Your task to perform on an android device: set the timer Image 0: 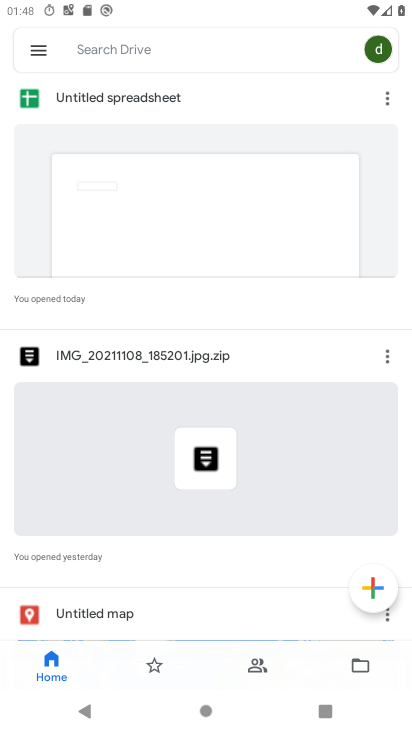
Step 0: press home button
Your task to perform on an android device: set the timer Image 1: 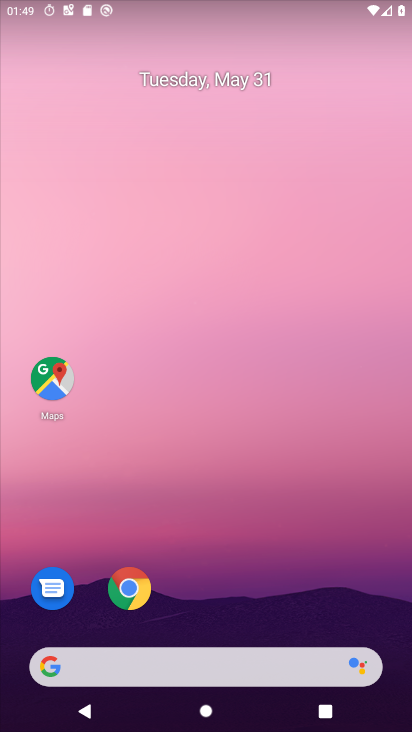
Step 1: drag from (320, 590) to (309, 91)
Your task to perform on an android device: set the timer Image 2: 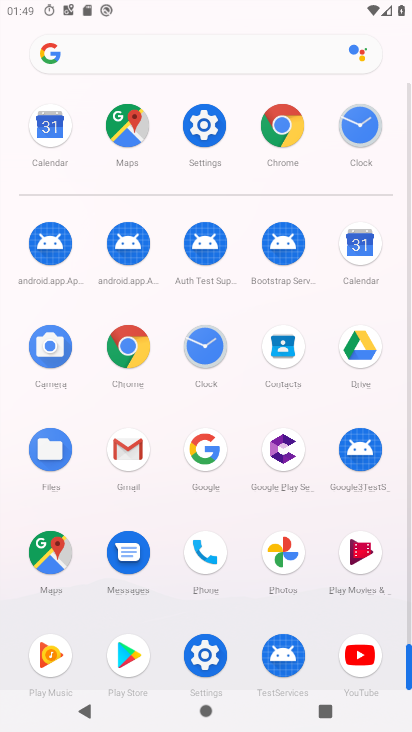
Step 2: click (225, 349)
Your task to perform on an android device: set the timer Image 3: 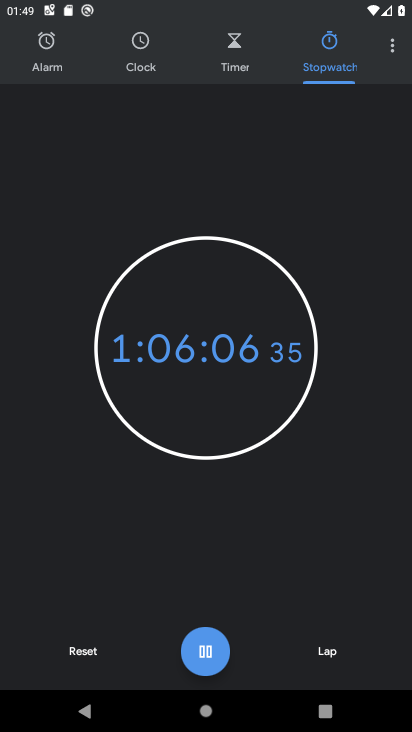
Step 3: click (248, 56)
Your task to perform on an android device: set the timer Image 4: 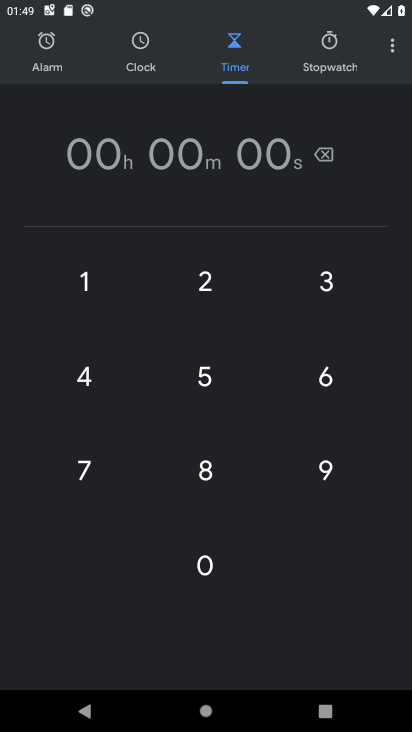
Step 4: click (337, 463)
Your task to perform on an android device: set the timer Image 5: 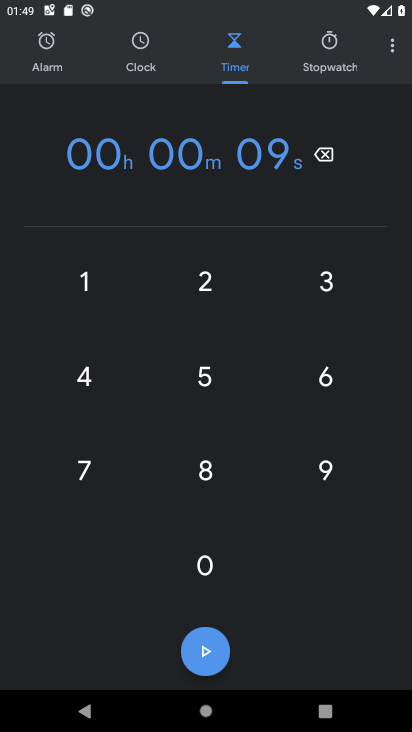
Step 5: click (199, 473)
Your task to perform on an android device: set the timer Image 6: 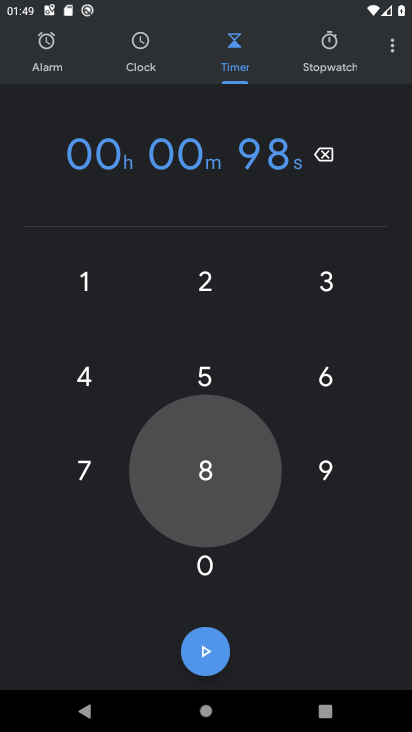
Step 6: click (340, 380)
Your task to perform on an android device: set the timer Image 7: 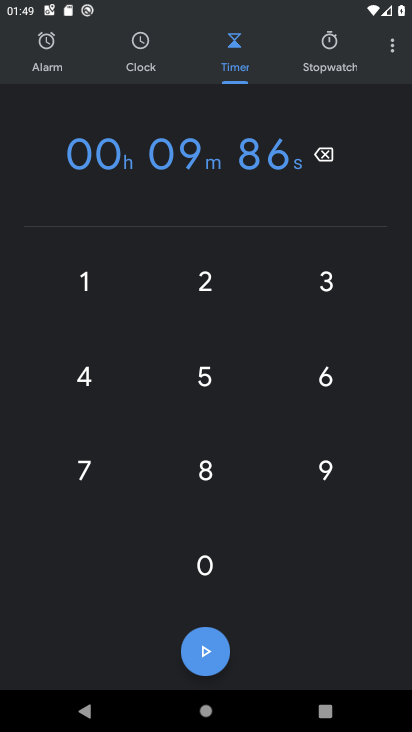
Step 7: click (193, 370)
Your task to perform on an android device: set the timer Image 8: 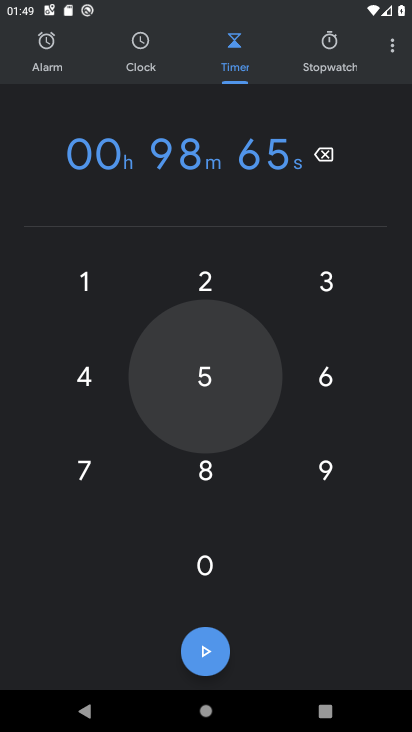
Step 8: click (213, 298)
Your task to perform on an android device: set the timer Image 9: 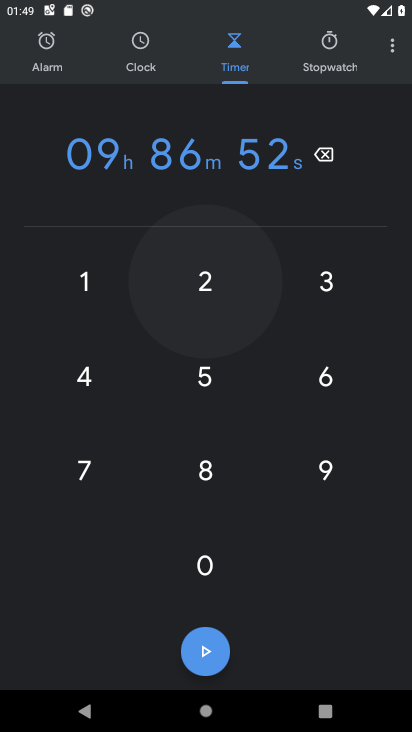
Step 9: click (319, 281)
Your task to perform on an android device: set the timer Image 10: 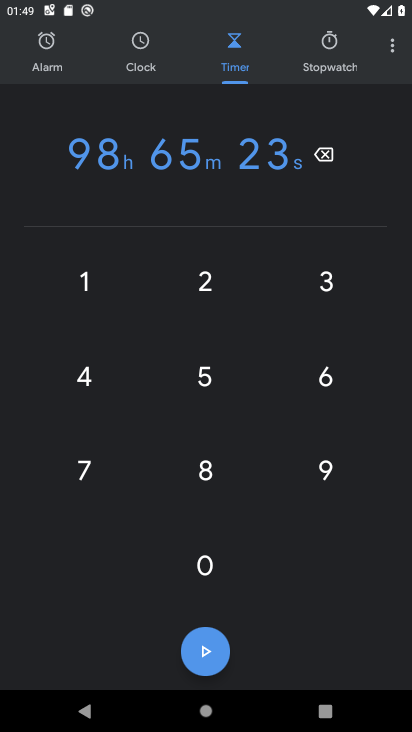
Step 10: click (198, 650)
Your task to perform on an android device: set the timer Image 11: 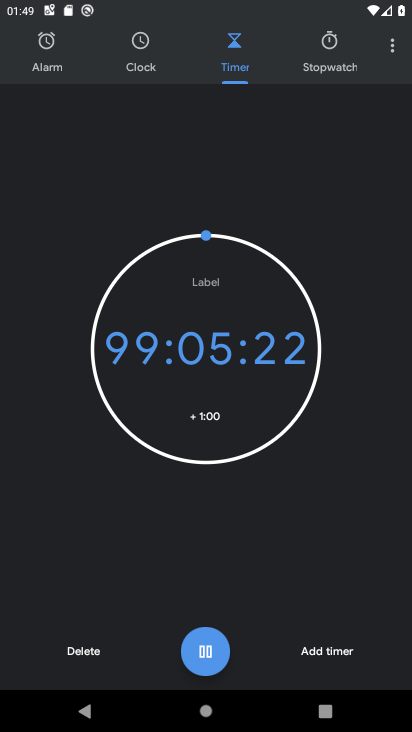
Step 11: task complete